Your task to perform on an android device: Open Android settings Image 0: 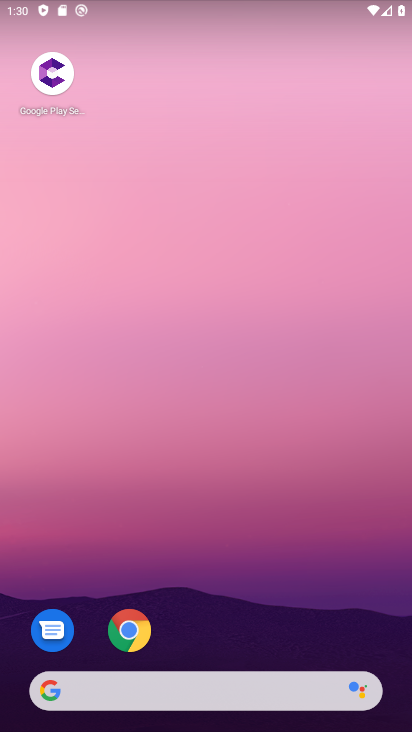
Step 0: drag from (184, 652) to (248, 182)
Your task to perform on an android device: Open Android settings Image 1: 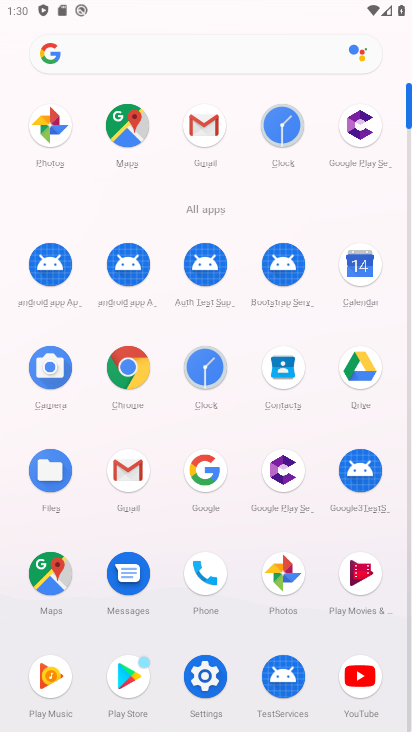
Step 1: click (199, 667)
Your task to perform on an android device: Open Android settings Image 2: 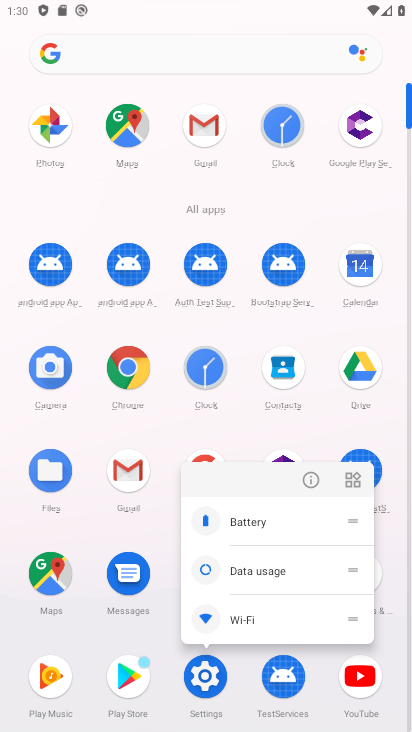
Step 2: click (303, 483)
Your task to perform on an android device: Open Android settings Image 3: 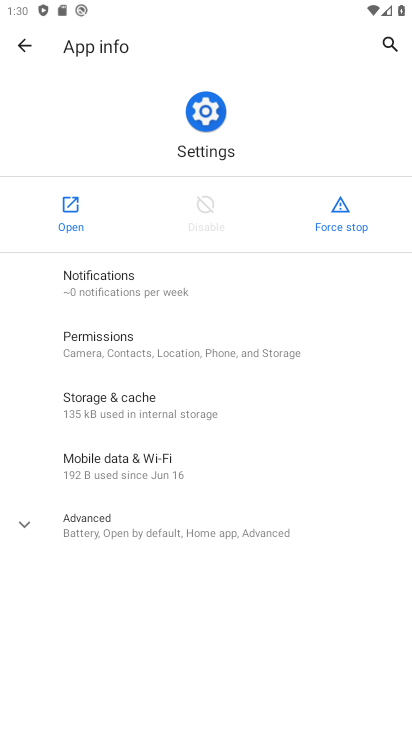
Step 3: click (72, 199)
Your task to perform on an android device: Open Android settings Image 4: 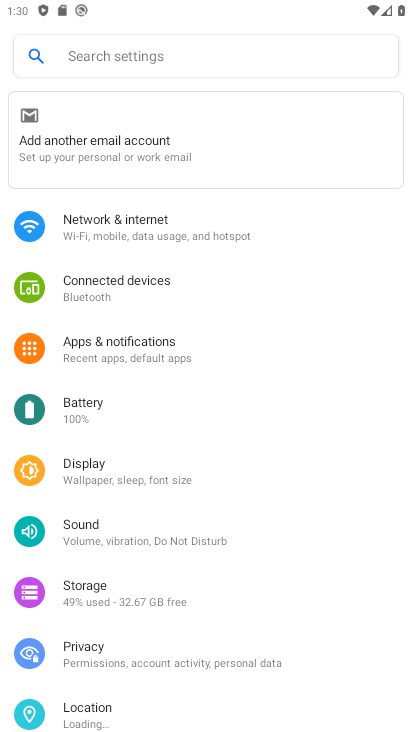
Step 4: drag from (185, 473) to (208, 216)
Your task to perform on an android device: Open Android settings Image 5: 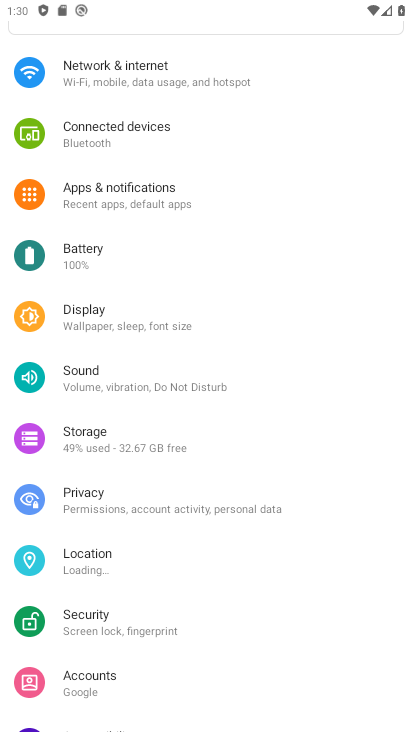
Step 5: drag from (157, 537) to (222, 267)
Your task to perform on an android device: Open Android settings Image 6: 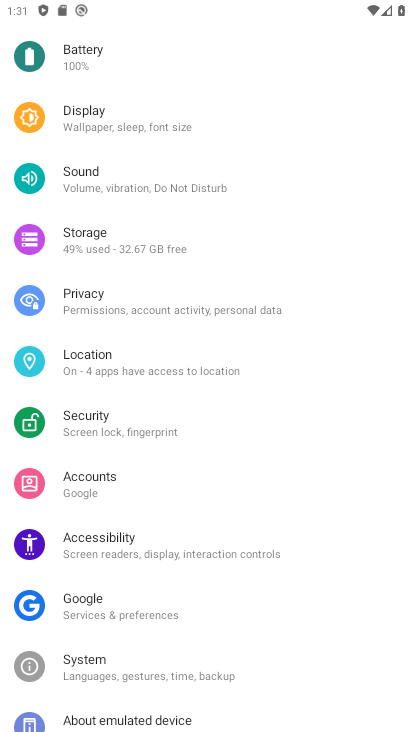
Step 6: drag from (178, 640) to (256, 316)
Your task to perform on an android device: Open Android settings Image 7: 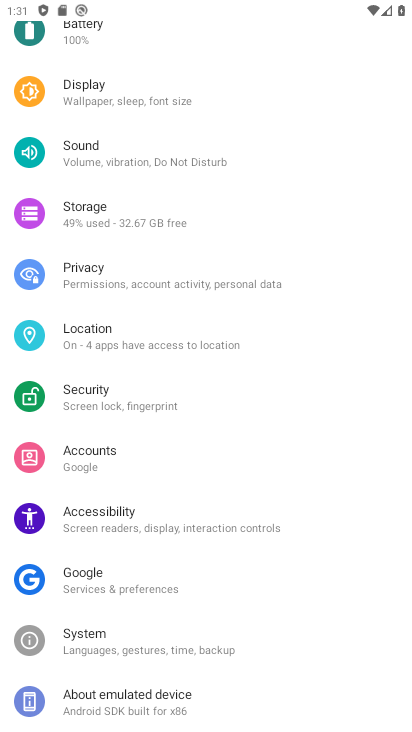
Step 7: drag from (196, 668) to (230, 455)
Your task to perform on an android device: Open Android settings Image 8: 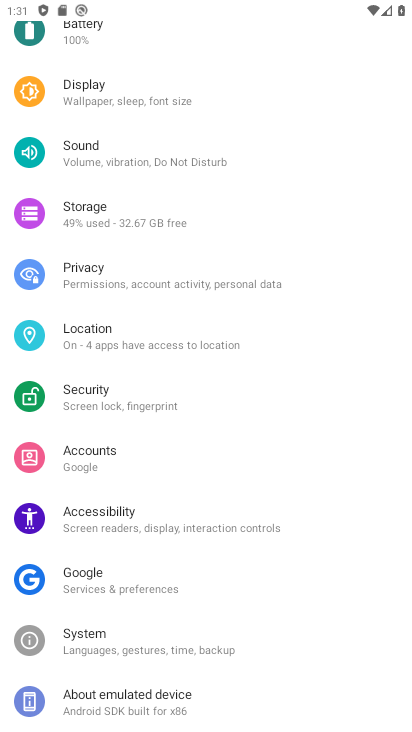
Step 8: click (163, 707)
Your task to perform on an android device: Open Android settings Image 9: 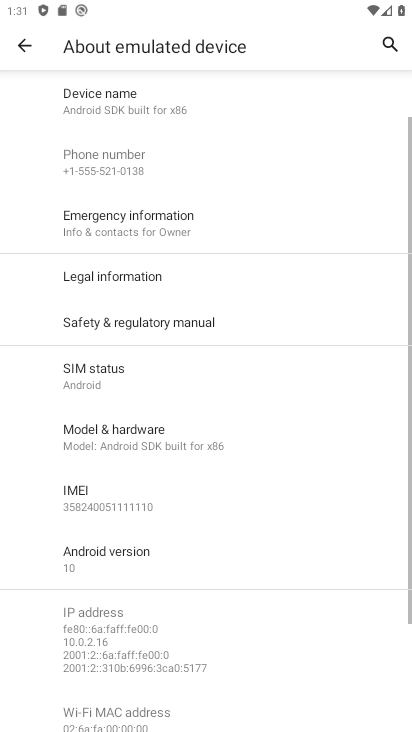
Step 9: drag from (258, 466) to (265, 100)
Your task to perform on an android device: Open Android settings Image 10: 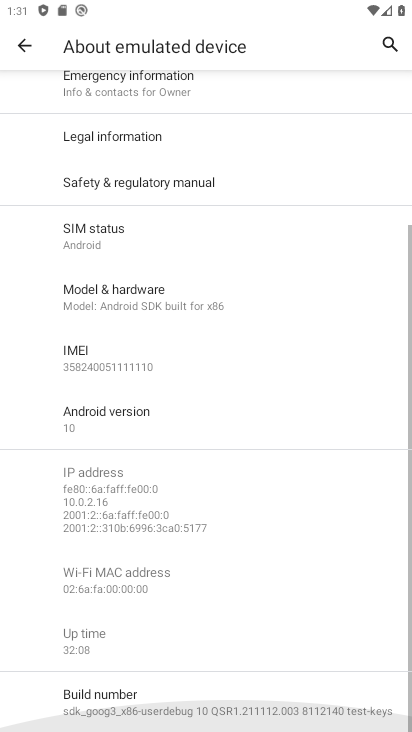
Step 10: drag from (256, 87) to (277, 576)
Your task to perform on an android device: Open Android settings Image 11: 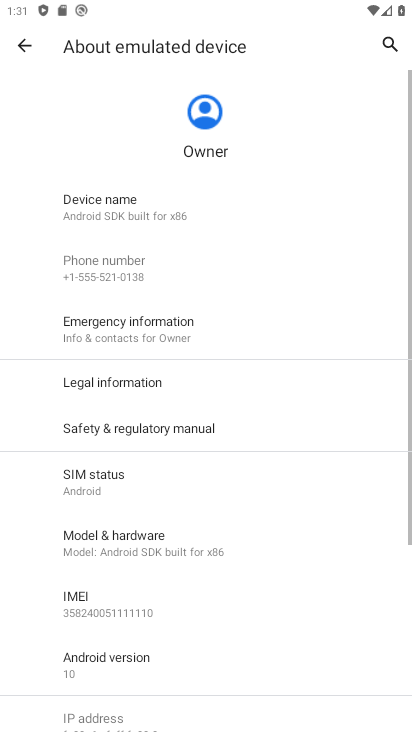
Step 11: click (132, 500)
Your task to perform on an android device: Open Android settings Image 12: 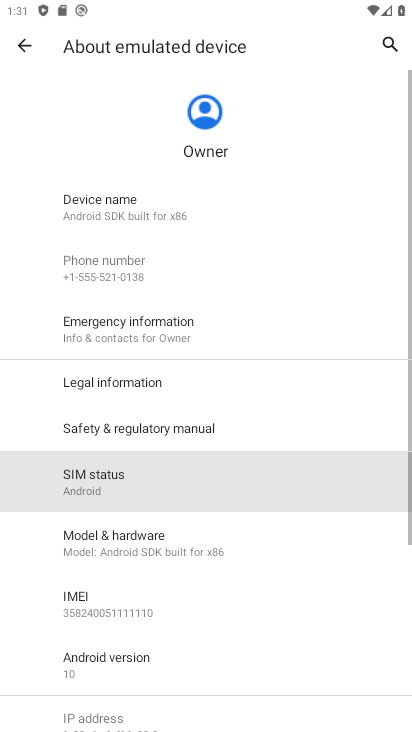
Step 12: drag from (229, 510) to (285, 294)
Your task to perform on an android device: Open Android settings Image 13: 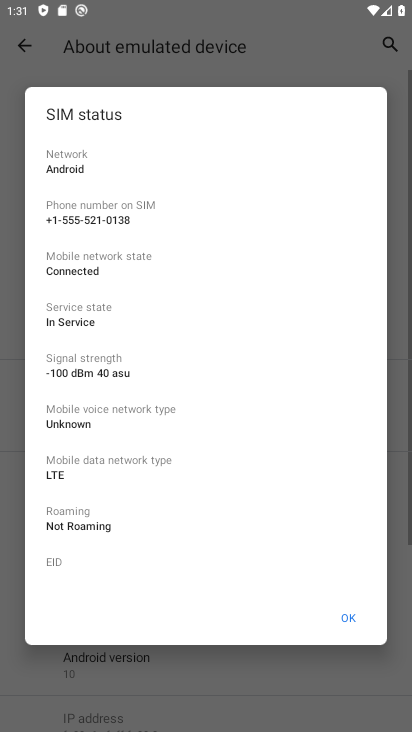
Step 13: click (341, 620)
Your task to perform on an android device: Open Android settings Image 14: 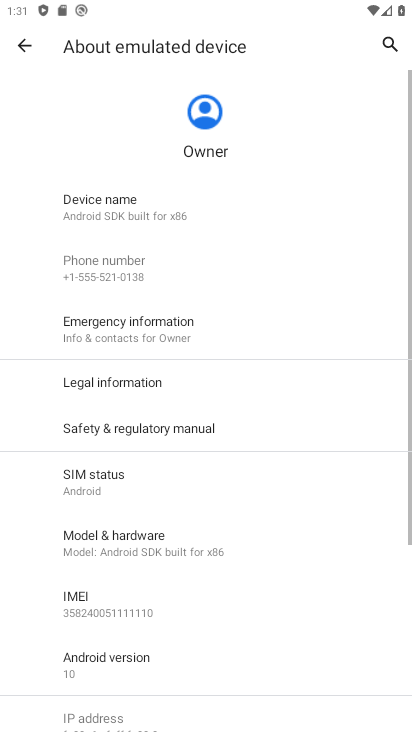
Step 14: task complete